Your task to perform on an android device: toggle notifications settings in the gmail app Image 0: 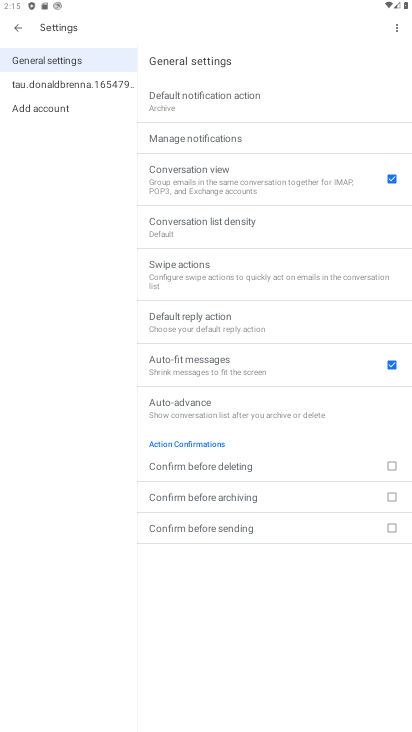
Step 0: click (197, 682)
Your task to perform on an android device: toggle notifications settings in the gmail app Image 1: 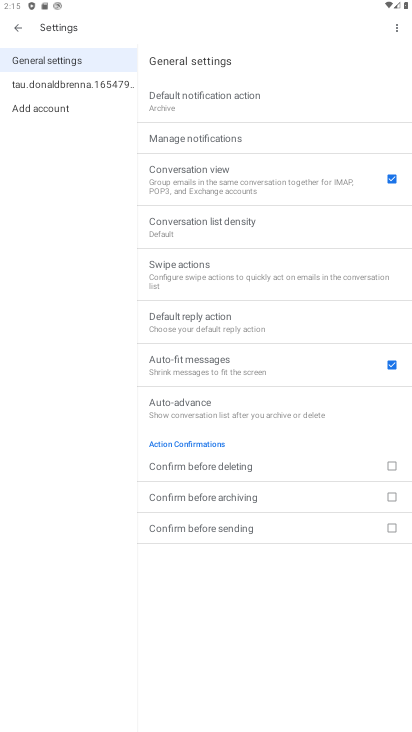
Step 1: press home button
Your task to perform on an android device: toggle notifications settings in the gmail app Image 2: 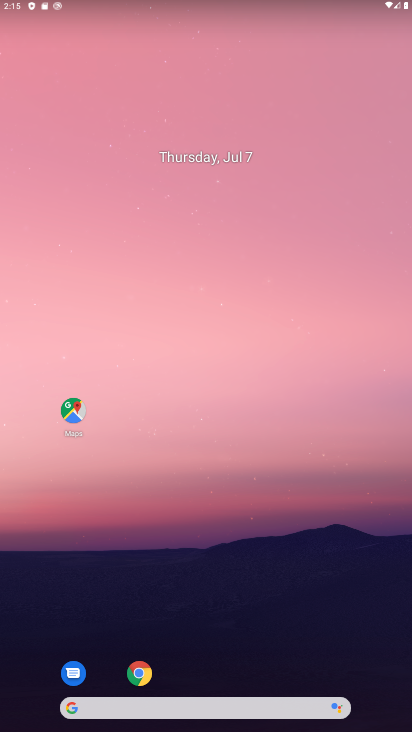
Step 2: drag from (202, 684) to (202, 86)
Your task to perform on an android device: toggle notifications settings in the gmail app Image 3: 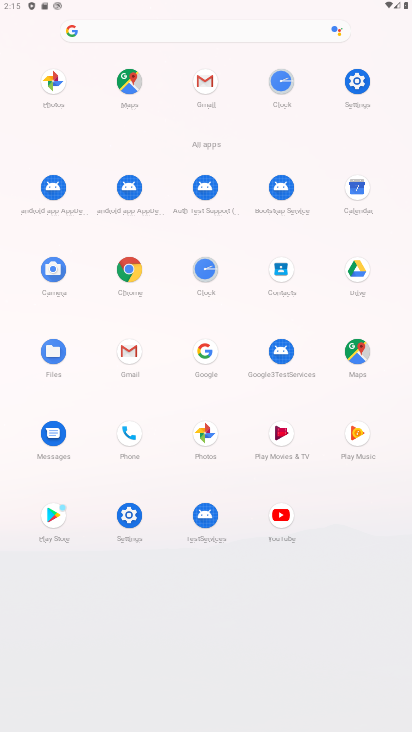
Step 3: click (117, 341)
Your task to perform on an android device: toggle notifications settings in the gmail app Image 4: 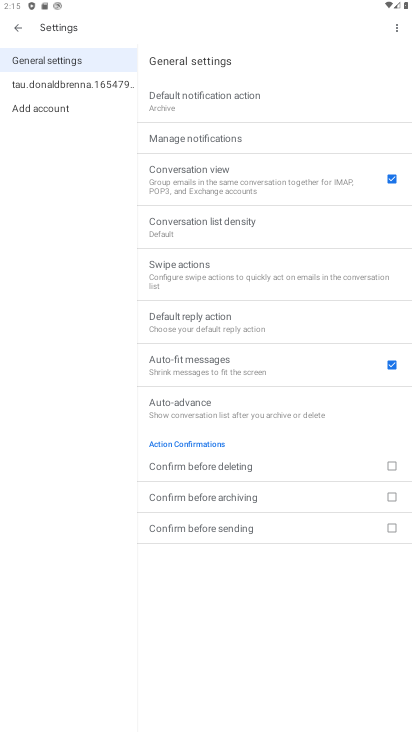
Step 4: click (199, 135)
Your task to perform on an android device: toggle notifications settings in the gmail app Image 5: 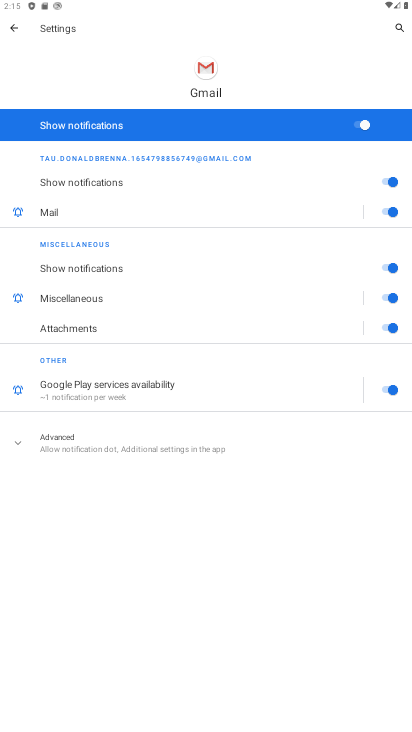
Step 5: click (358, 129)
Your task to perform on an android device: toggle notifications settings in the gmail app Image 6: 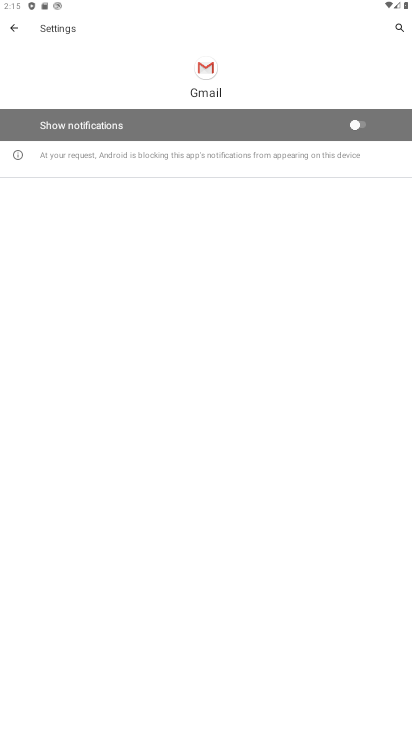
Step 6: task complete